Your task to perform on an android device: clear all cookies in the chrome app Image 0: 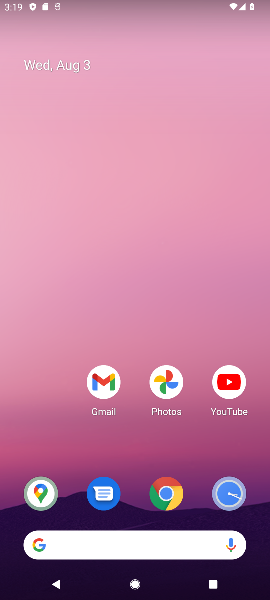
Step 0: drag from (222, 455) to (267, 11)
Your task to perform on an android device: clear all cookies in the chrome app Image 1: 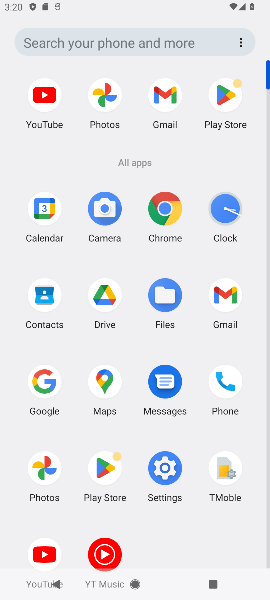
Step 1: click (168, 214)
Your task to perform on an android device: clear all cookies in the chrome app Image 2: 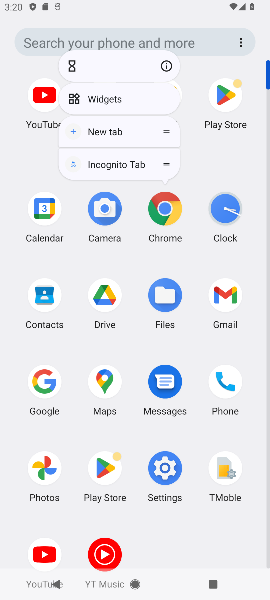
Step 2: click (168, 210)
Your task to perform on an android device: clear all cookies in the chrome app Image 3: 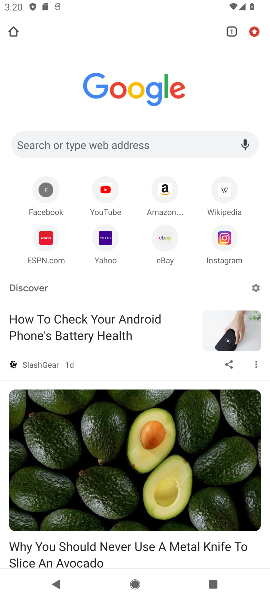
Step 3: drag from (228, 81) to (176, 366)
Your task to perform on an android device: clear all cookies in the chrome app Image 4: 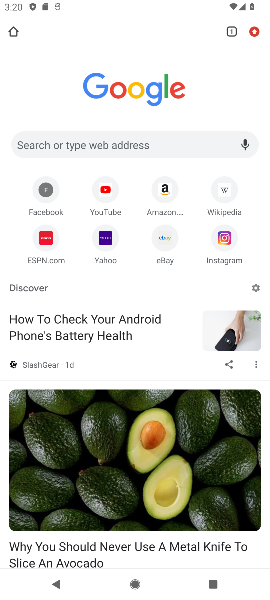
Step 4: click (259, 32)
Your task to perform on an android device: clear all cookies in the chrome app Image 5: 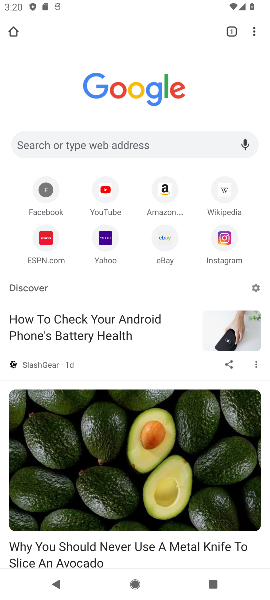
Step 5: click (259, 34)
Your task to perform on an android device: clear all cookies in the chrome app Image 6: 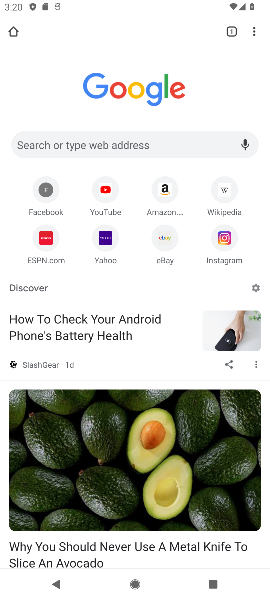
Step 6: drag from (259, 34) to (165, 169)
Your task to perform on an android device: clear all cookies in the chrome app Image 7: 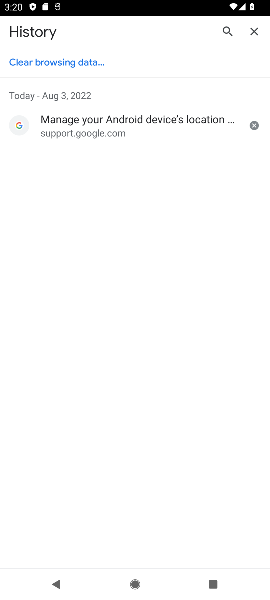
Step 7: click (64, 65)
Your task to perform on an android device: clear all cookies in the chrome app Image 8: 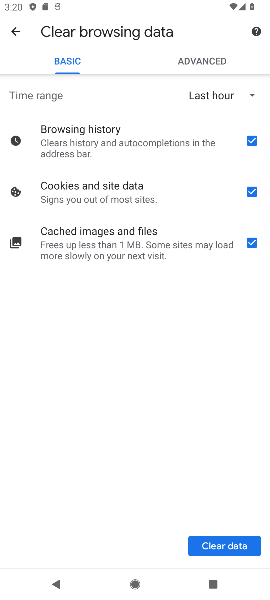
Step 8: click (259, 244)
Your task to perform on an android device: clear all cookies in the chrome app Image 9: 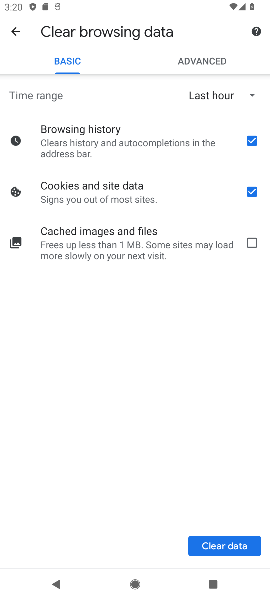
Step 9: click (252, 139)
Your task to perform on an android device: clear all cookies in the chrome app Image 10: 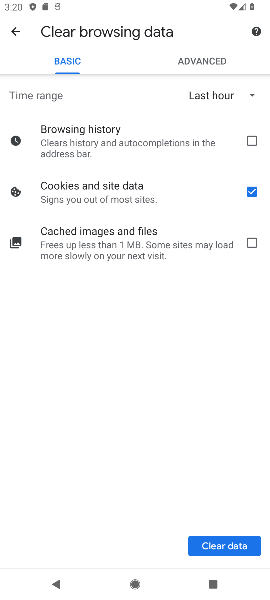
Step 10: click (240, 395)
Your task to perform on an android device: clear all cookies in the chrome app Image 11: 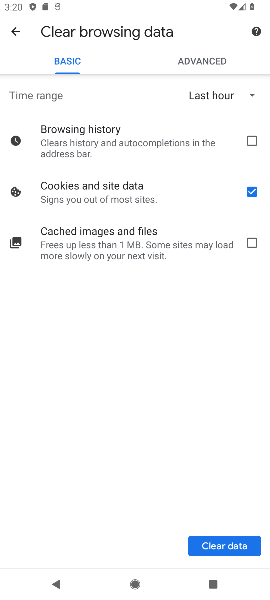
Step 11: click (210, 558)
Your task to perform on an android device: clear all cookies in the chrome app Image 12: 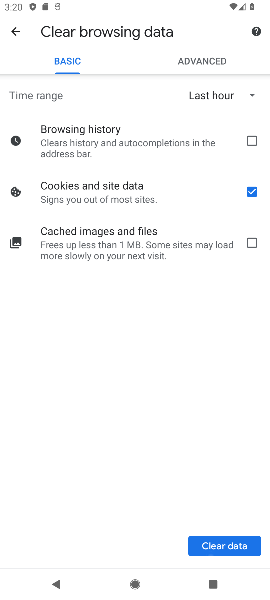
Step 12: click (211, 549)
Your task to perform on an android device: clear all cookies in the chrome app Image 13: 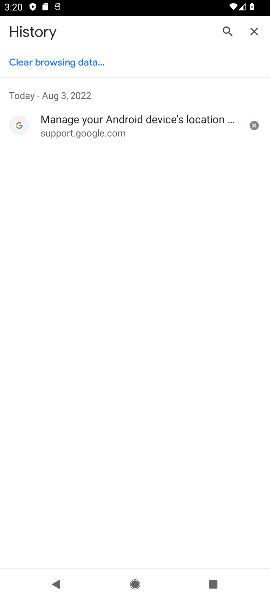
Step 13: task complete